Your task to perform on an android device: delete browsing data in the chrome app Image 0: 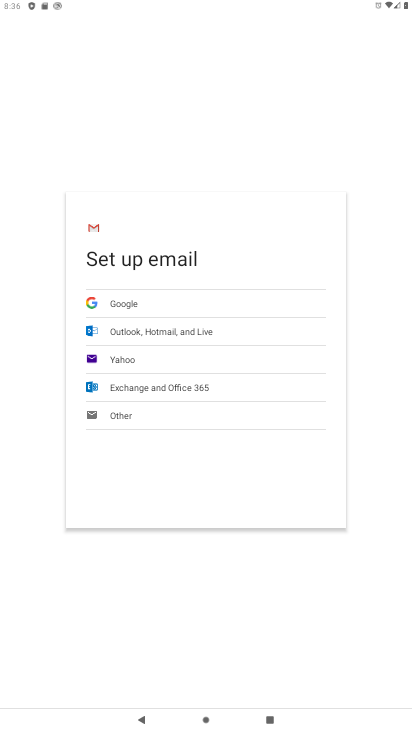
Step 0: press home button
Your task to perform on an android device: delete browsing data in the chrome app Image 1: 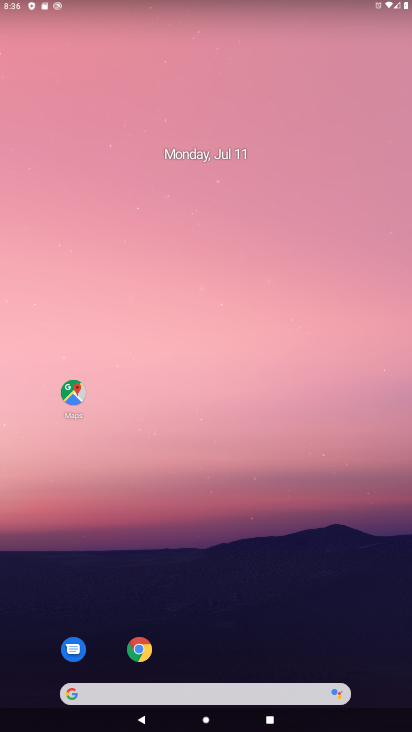
Step 1: click (140, 650)
Your task to perform on an android device: delete browsing data in the chrome app Image 2: 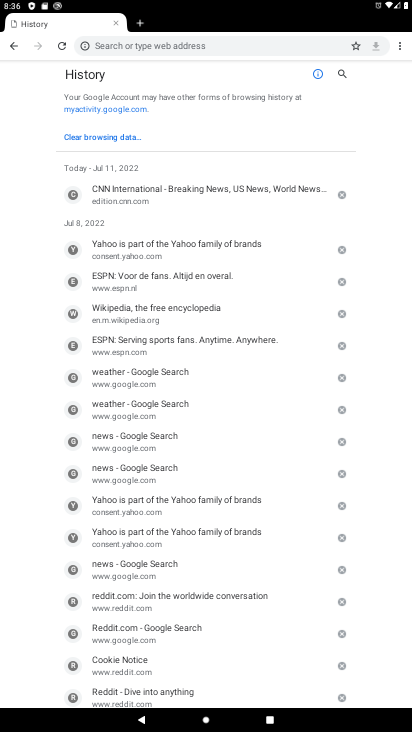
Step 2: click (118, 136)
Your task to perform on an android device: delete browsing data in the chrome app Image 3: 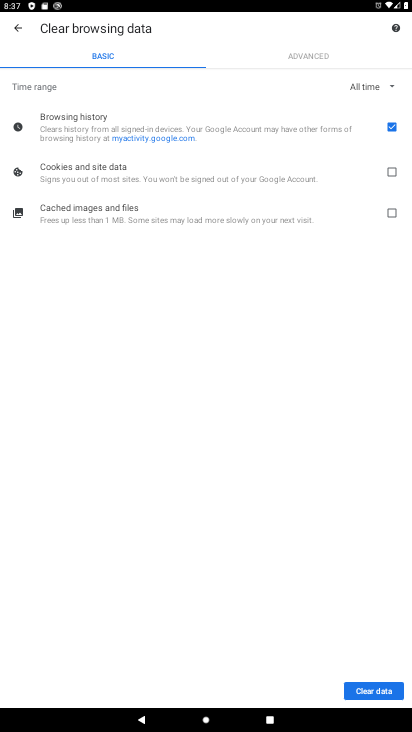
Step 3: click (393, 178)
Your task to perform on an android device: delete browsing data in the chrome app Image 4: 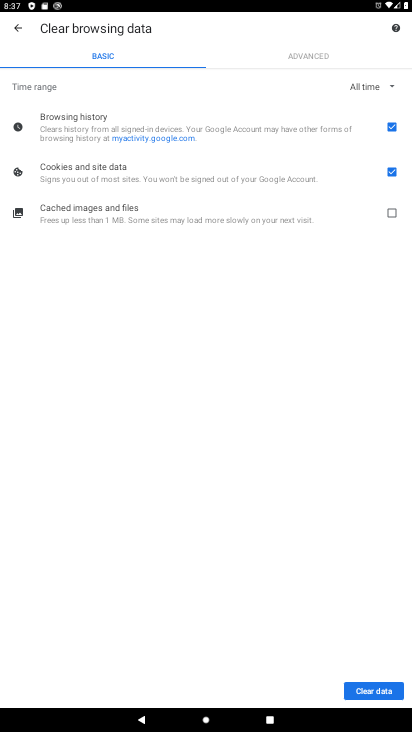
Step 4: click (389, 209)
Your task to perform on an android device: delete browsing data in the chrome app Image 5: 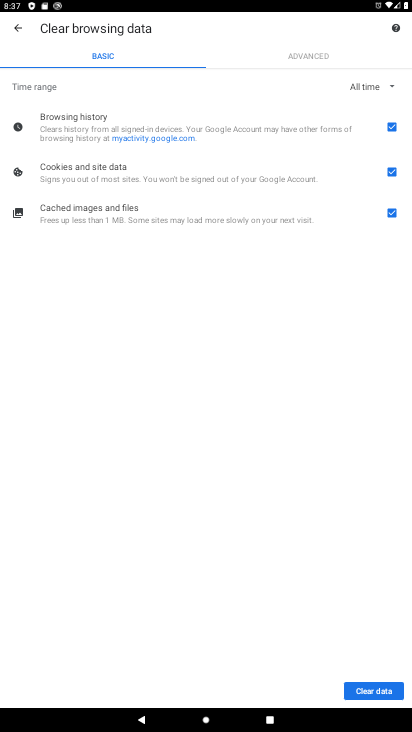
Step 5: click (369, 689)
Your task to perform on an android device: delete browsing data in the chrome app Image 6: 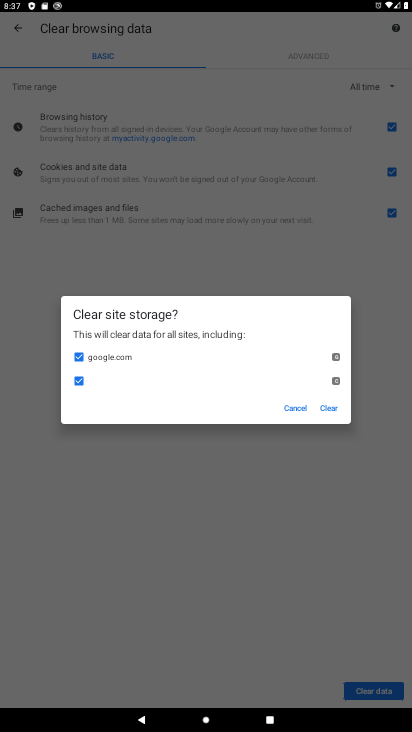
Step 6: click (327, 410)
Your task to perform on an android device: delete browsing data in the chrome app Image 7: 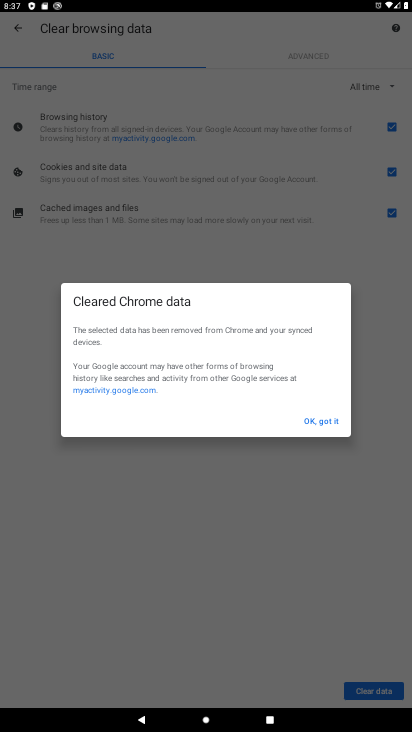
Step 7: click (324, 419)
Your task to perform on an android device: delete browsing data in the chrome app Image 8: 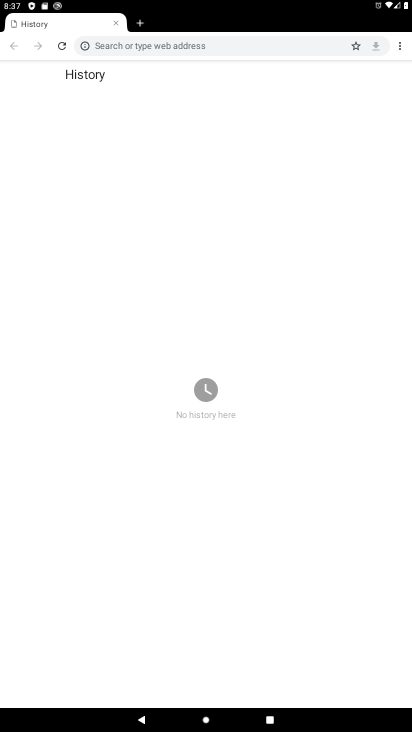
Step 8: task complete